Your task to perform on an android device: find snoozed emails in the gmail app Image 0: 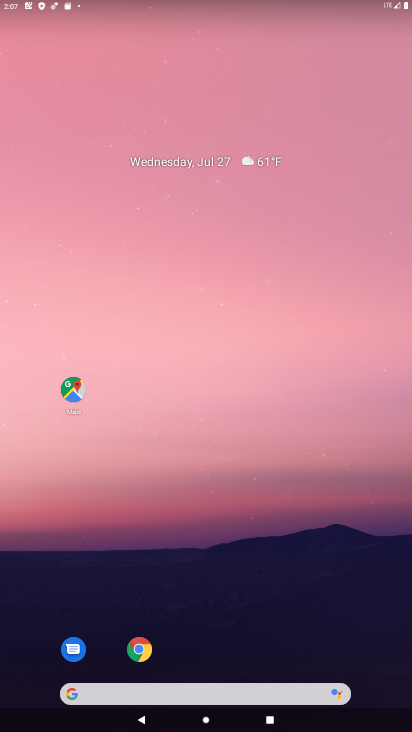
Step 0: click (137, 190)
Your task to perform on an android device: find snoozed emails in the gmail app Image 1: 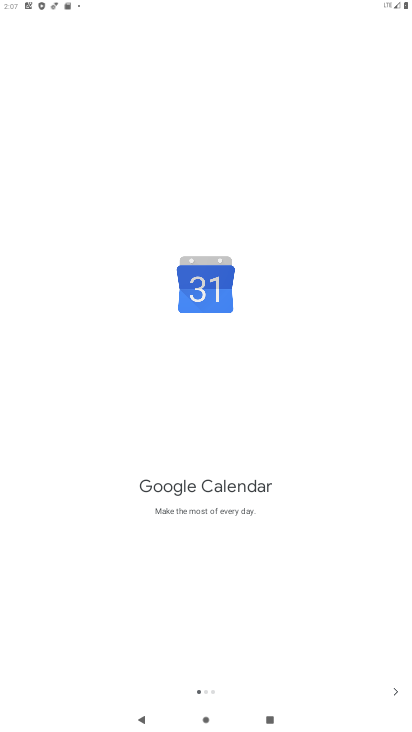
Step 1: press home button
Your task to perform on an android device: find snoozed emails in the gmail app Image 2: 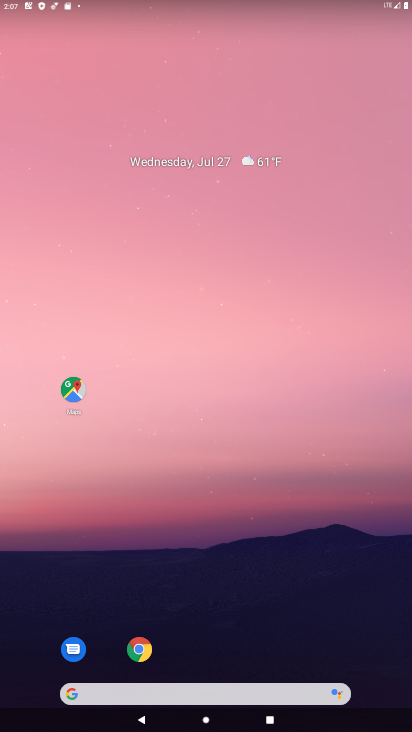
Step 2: drag from (174, 642) to (154, 203)
Your task to perform on an android device: find snoozed emails in the gmail app Image 3: 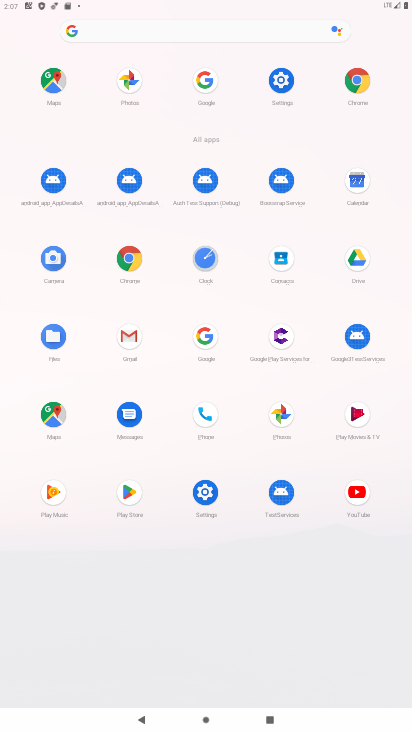
Step 3: click (123, 345)
Your task to perform on an android device: find snoozed emails in the gmail app Image 4: 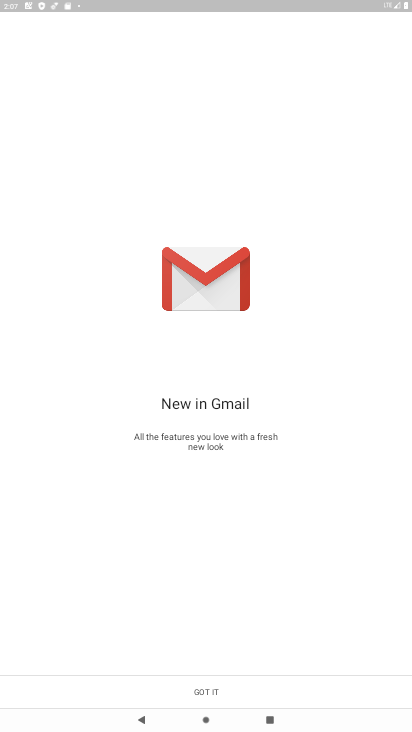
Step 4: click (214, 696)
Your task to perform on an android device: find snoozed emails in the gmail app Image 5: 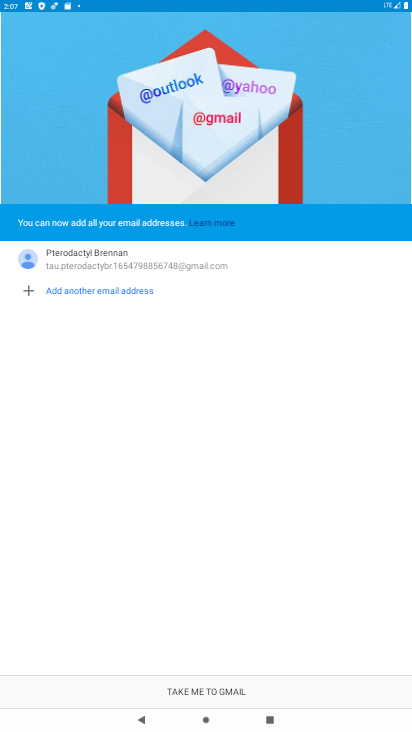
Step 5: click (199, 686)
Your task to perform on an android device: find snoozed emails in the gmail app Image 6: 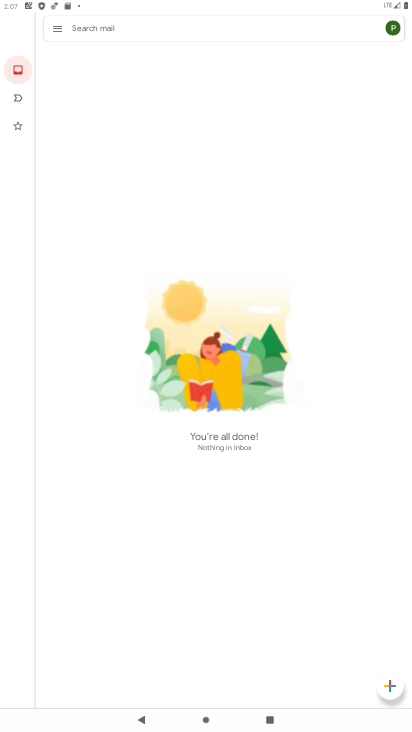
Step 6: click (58, 32)
Your task to perform on an android device: find snoozed emails in the gmail app Image 7: 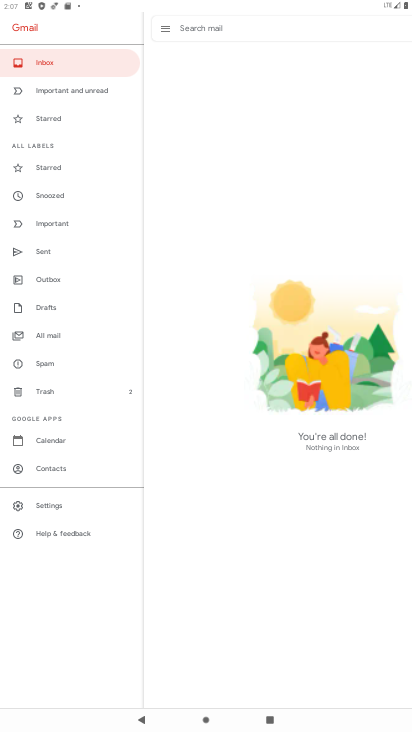
Step 7: click (48, 193)
Your task to perform on an android device: find snoozed emails in the gmail app Image 8: 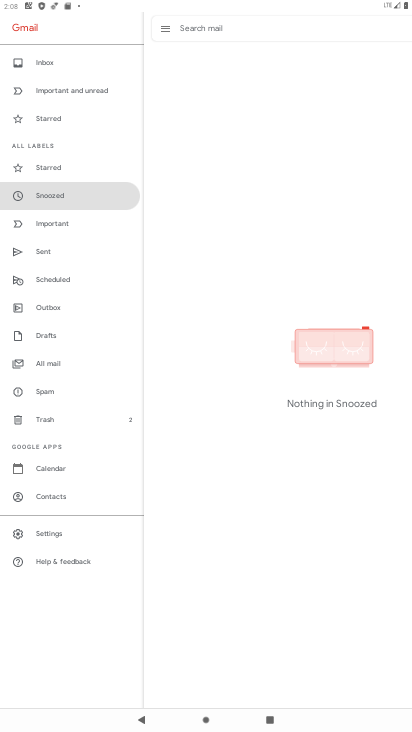
Step 8: task complete